Your task to perform on an android device: Open Chrome and go to settings Image 0: 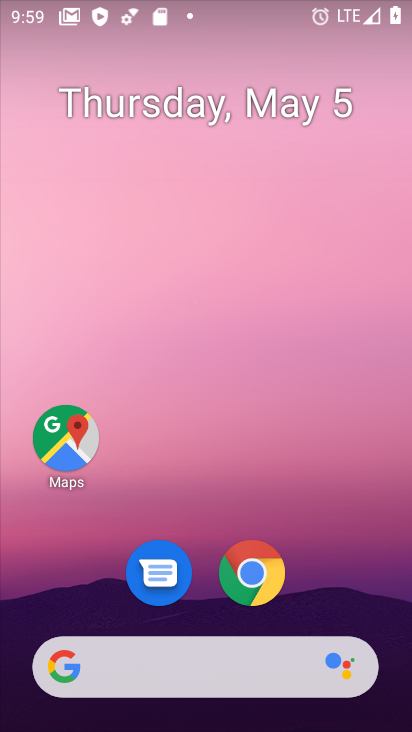
Step 0: click (251, 574)
Your task to perform on an android device: Open Chrome and go to settings Image 1: 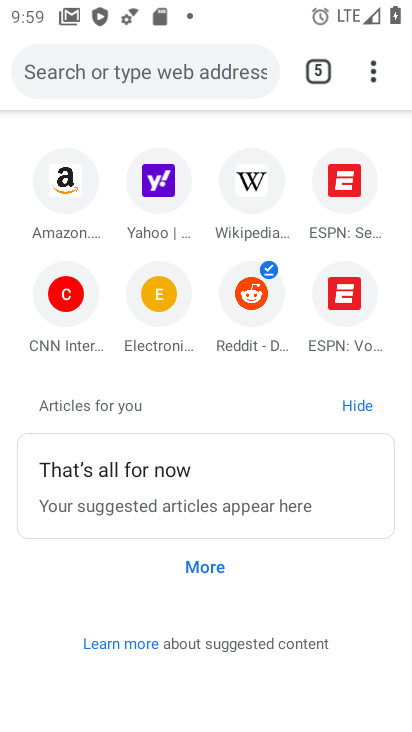
Step 1: task complete